Your task to perform on an android device: check the backup settings in the google photos Image 0: 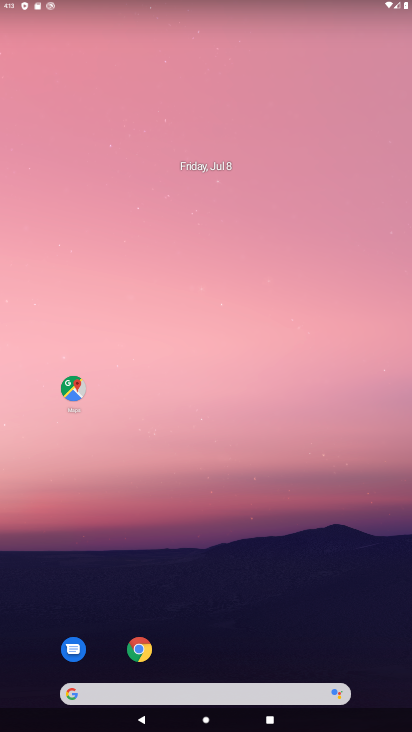
Step 0: drag from (189, 638) to (298, 72)
Your task to perform on an android device: check the backup settings in the google photos Image 1: 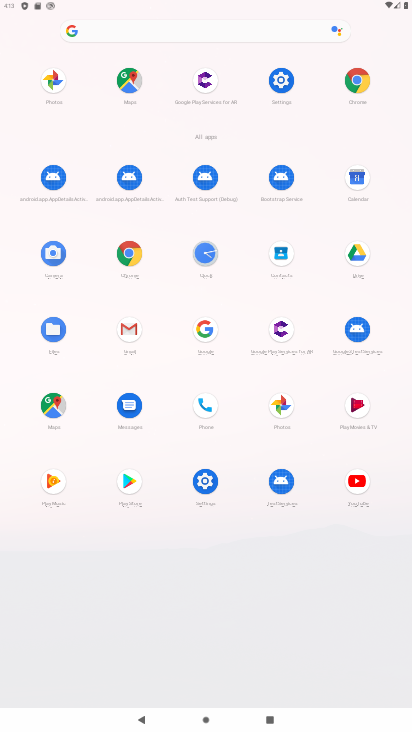
Step 1: click (280, 412)
Your task to perform on an android device: check the backup settings in the google photos Image 2: 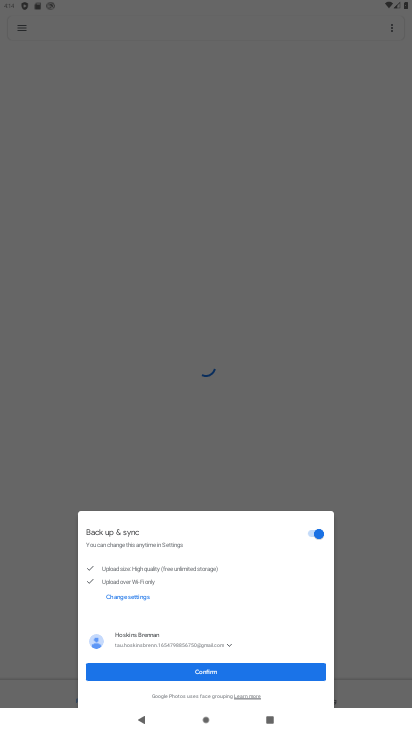
Step 2: click (211, 678)
Your task to perform on an android device: check the backup settings in the google photos Image 3: 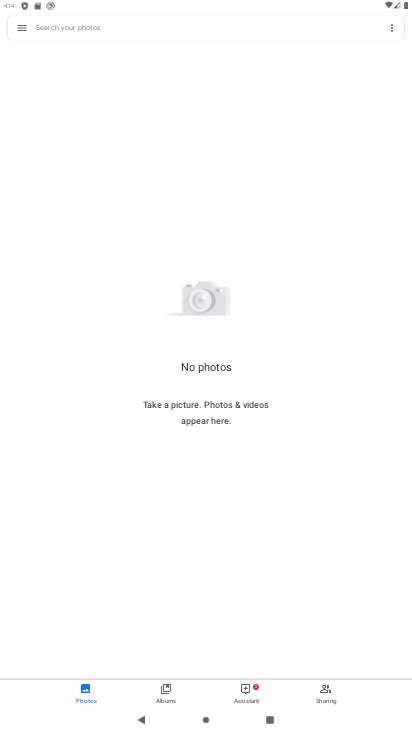
Step 3: click (28, 28)
Your task to perform on an android device: check the backup settings in the google photos Image 4: 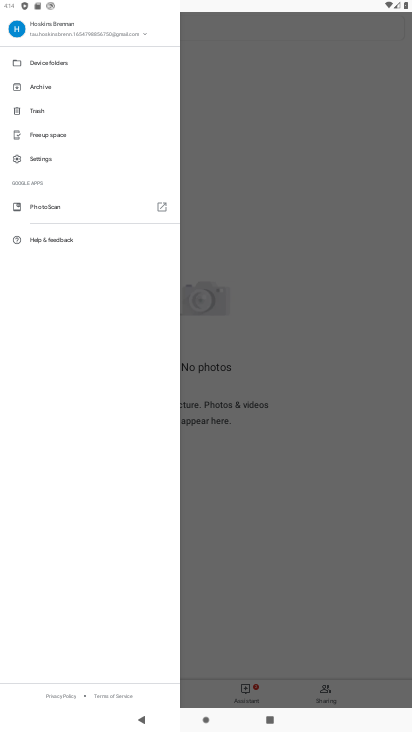
Step 4: click (61, 162)
Your task to perform on an android device: check the backup settings in the google photos Image 5: 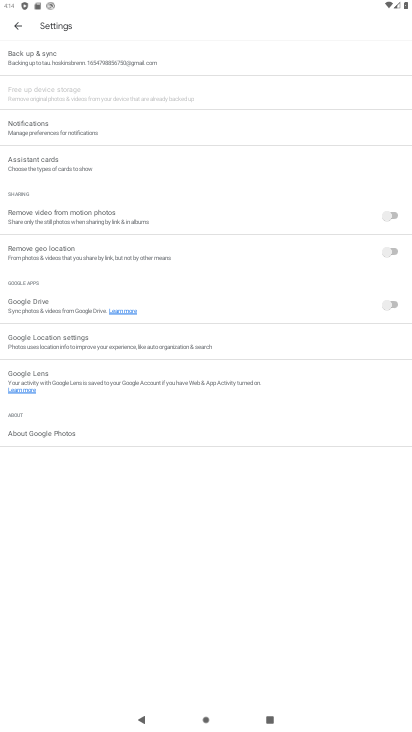
Step 5: click (72, 61)
Your task to perform on an android device: check the backup settings in the google photos Image 6: 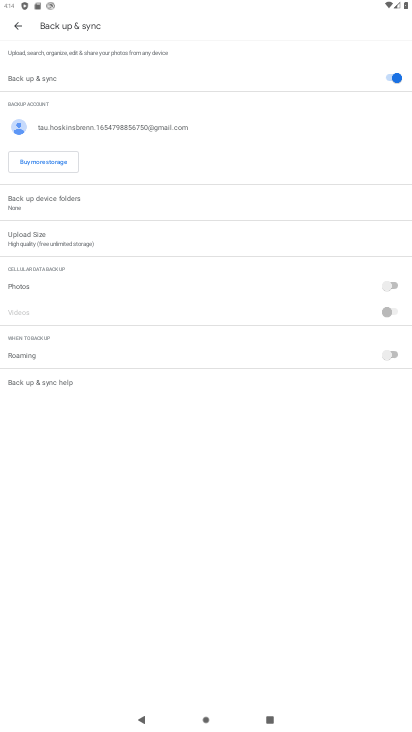
Step 6: task complete